Your task to perform on an android device: add a contact in the contacts app Image 0: 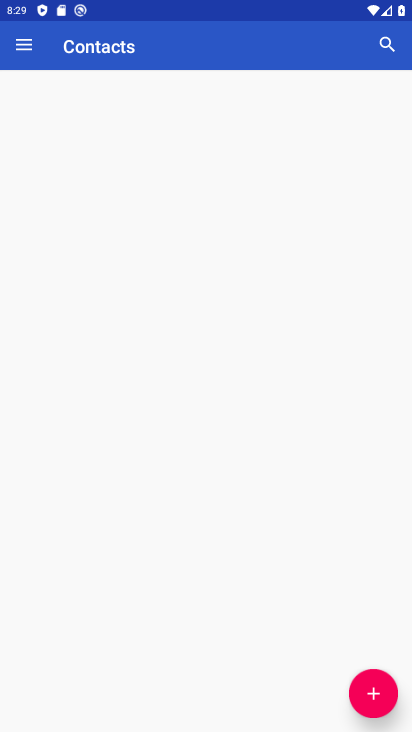
Step 0: drag from (216, 412) to (226, 289)
Your task to perform on an android device: add a contact in the contacts app Image 1: 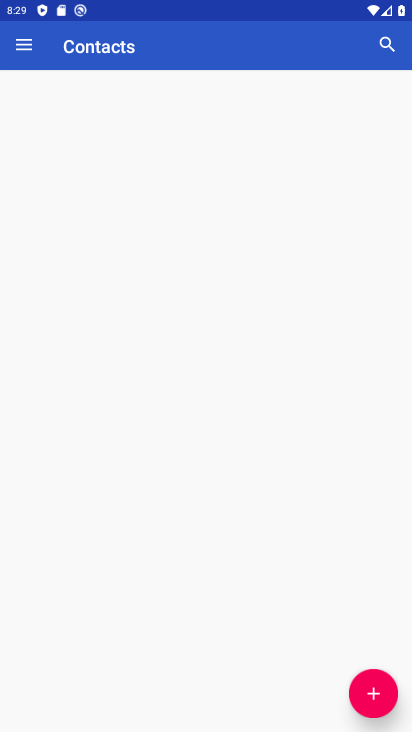
Step 1: click (369, 692)
Your task to perform on an android device: add a contact in the contacts app Image 2: 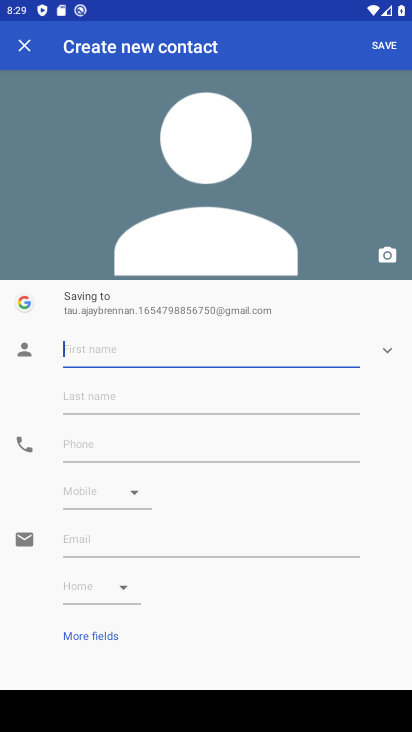
Step 2: type ""
Your task to perform on an android device: add a contact in the contacts app Image 3: 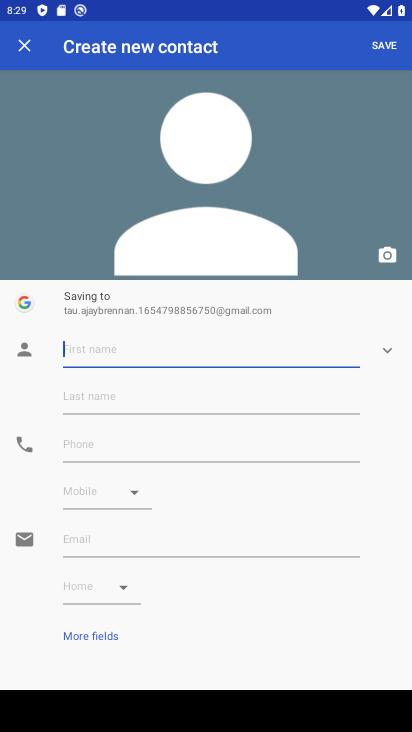
Step 3: type "anuj"
Your task to perform on an android device: add a contact in the contacts app Image 4: 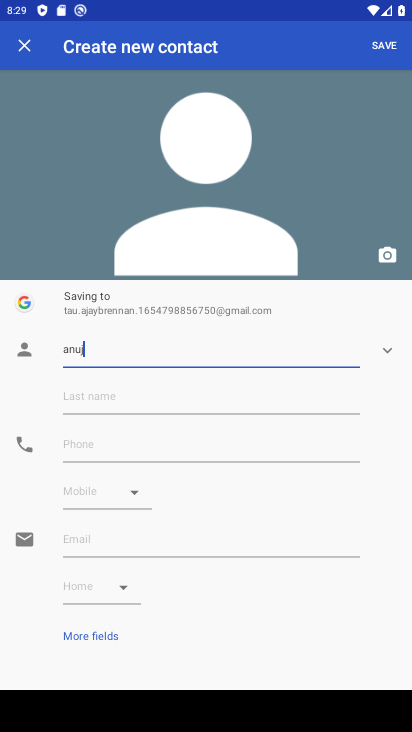
Step 4: click (107, 443)
Your task to perform on an android device: add a contact in the contacts app Image 5: 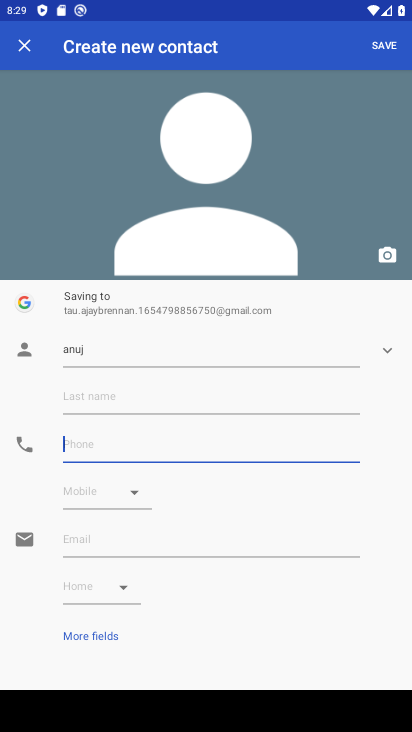
Step 5: type "686457866"
Your task to perform on an android device: add a contact in the contacts app Image 6: 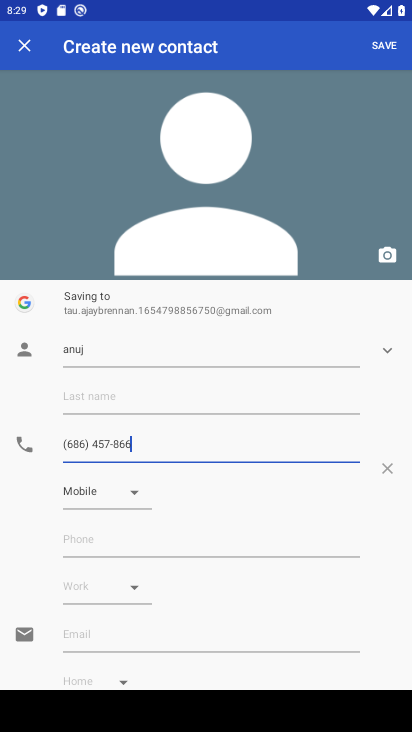
Step 6: click (362, 54)
Your task to perform on an android device: add a contact in the contacts app Image 7: 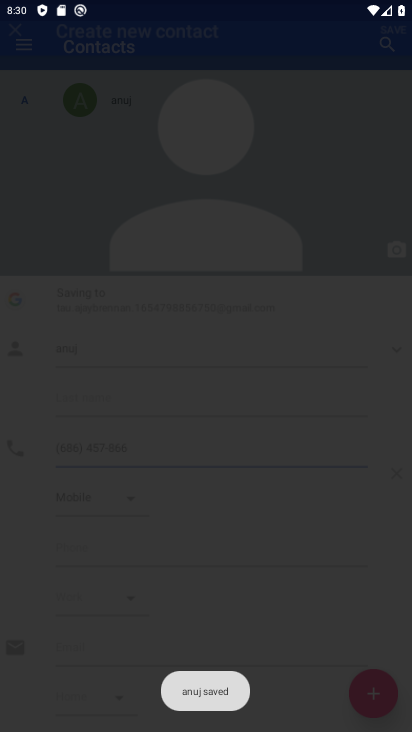
Step 7: click (373, 45)
Your task to perform on an android device: add a contact in the contacts app Image 8: 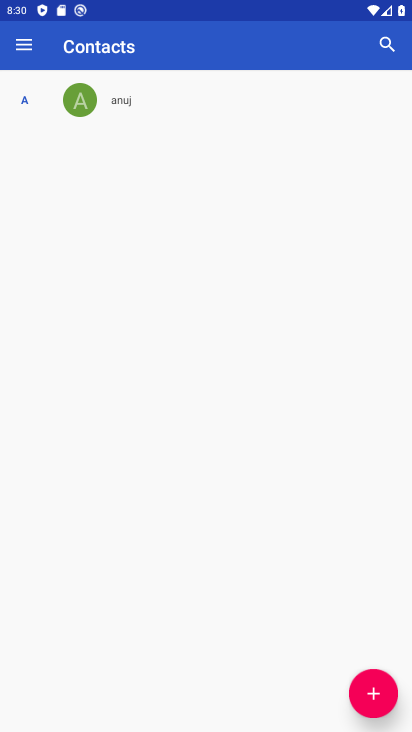
Step 8: task complete